Your task to perform on an android device: Do I have any events today? Image 0: 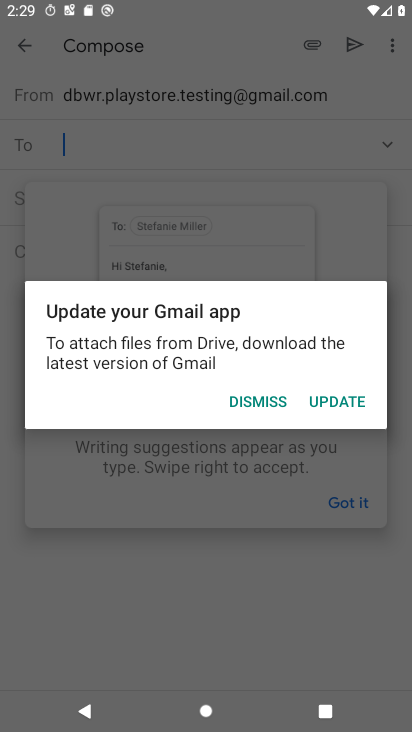
Step 0: press home button
Your task to perform on an android device: Do I have any events today? Image 1: 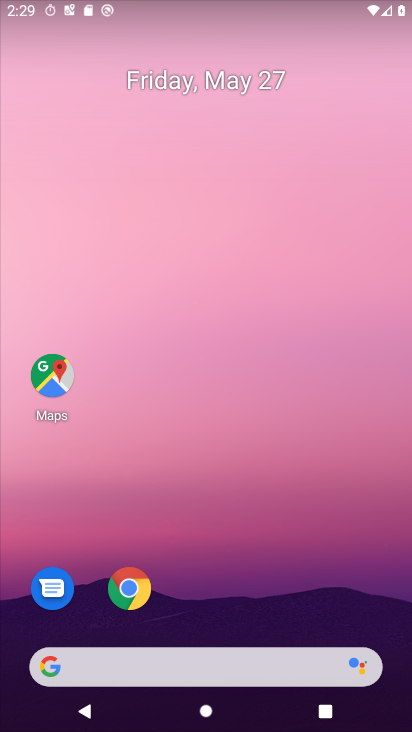
Step 1: drag from (231, 611) to (210, 13)
Your task to perform on an android device: Do I have any events today? Image 2: 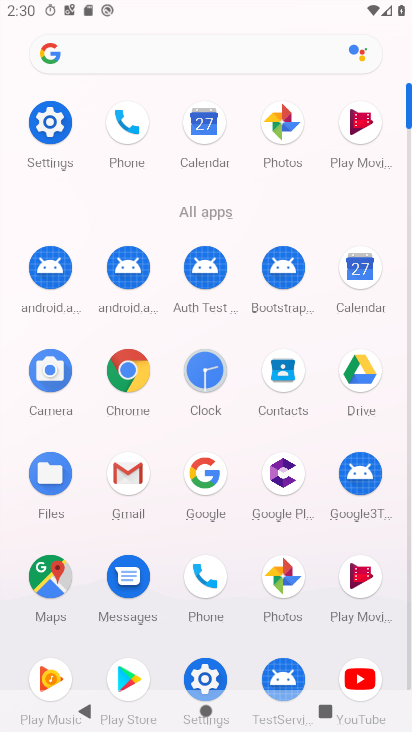
Step 2: click (198, 120)
Your task to perform on an android device: Do I have any events today? Image 3: 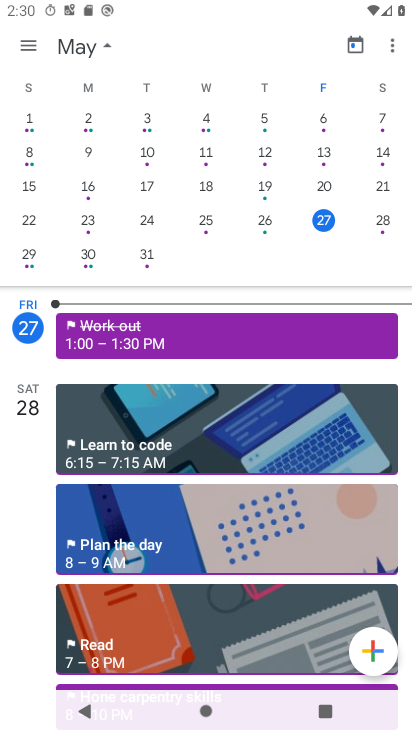
Step 3: click (324, 218)
Your task to perform on an android device: Do I have any events today? Image 4: 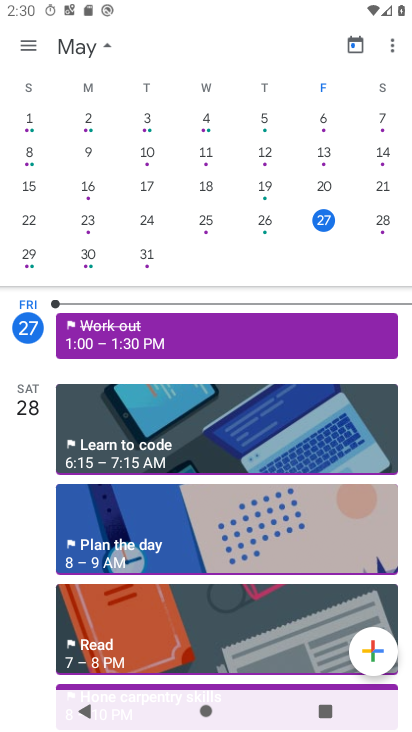
Step 4: task complete